Your task to perform on an android device: set an alarm Image 0: 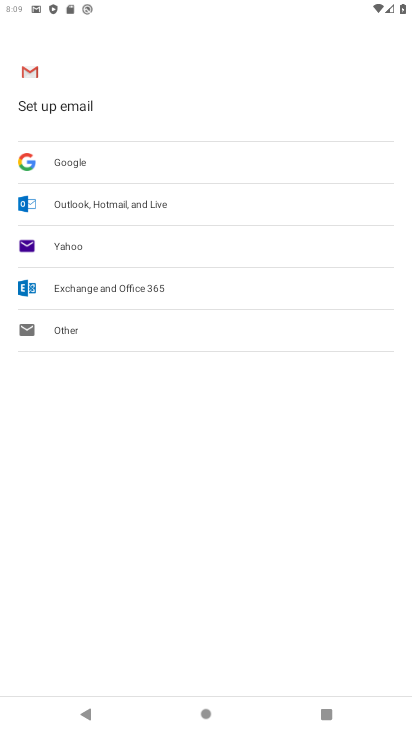
Step 0: press home button
Your task to perform on an android device: set an alarm Image 1: 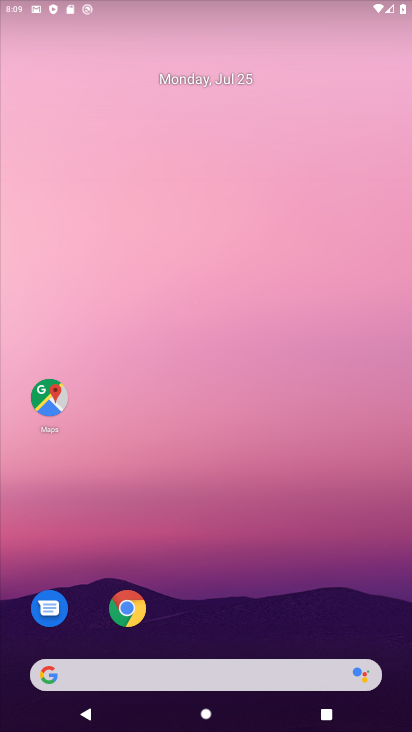
Step 1: drag from (130, 715) to (118, 18)
Your task to perform on an android device: set an alarm Image 2: 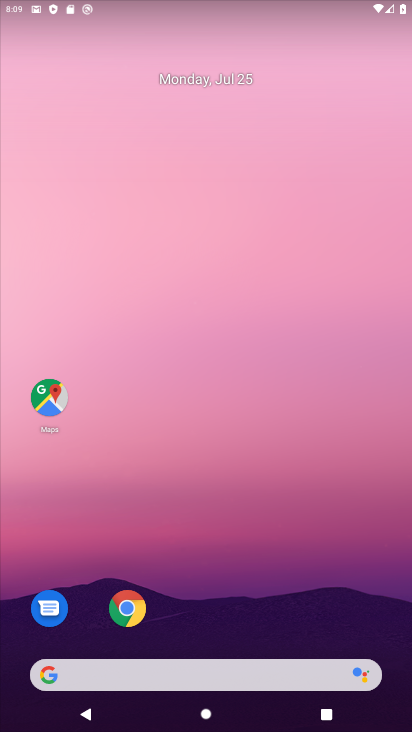
Step 2: drag from (278, 685) to (309, 77)
Your task to perform on an android device: set an alarm Image 3: 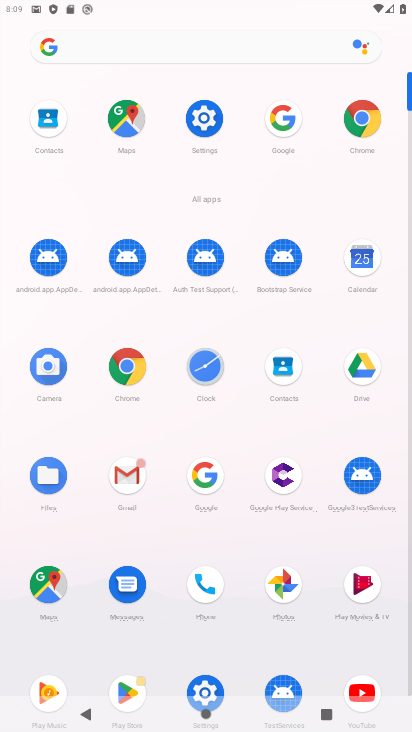
Step 3: click (204, 372)
Your task to perform on an android device: set an alarm Image 4: 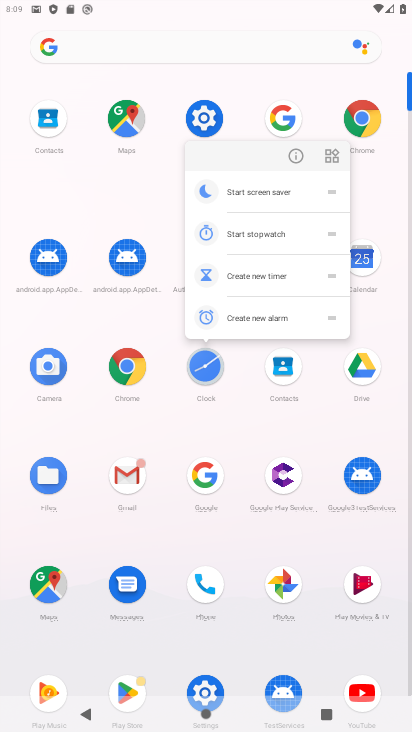
Step 4: click (203, 371)
Your task to perform on an android device: set an alarm Image 5: 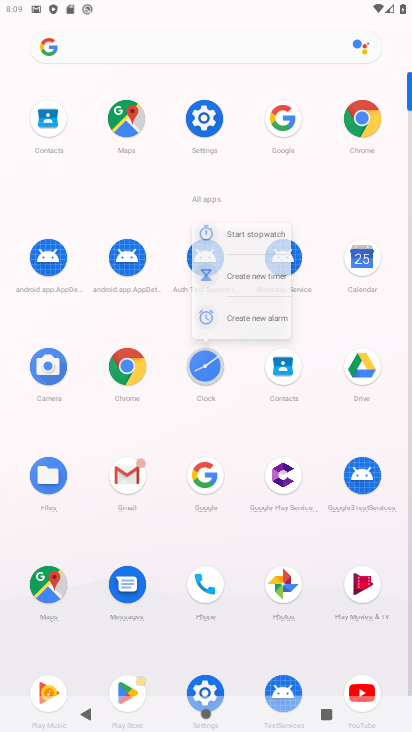
Step 5: click (203, 371)
Your task to perform on an android device: set an alarm Image 6: 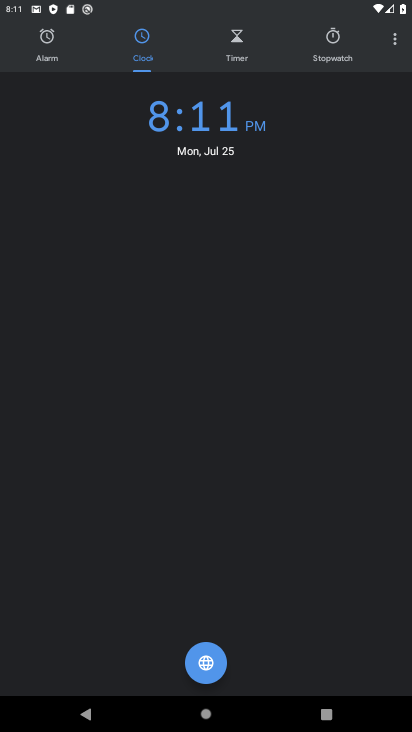
Step 6: click (59, 32)
Your task to perform on an android device: set an alarm Image 7: 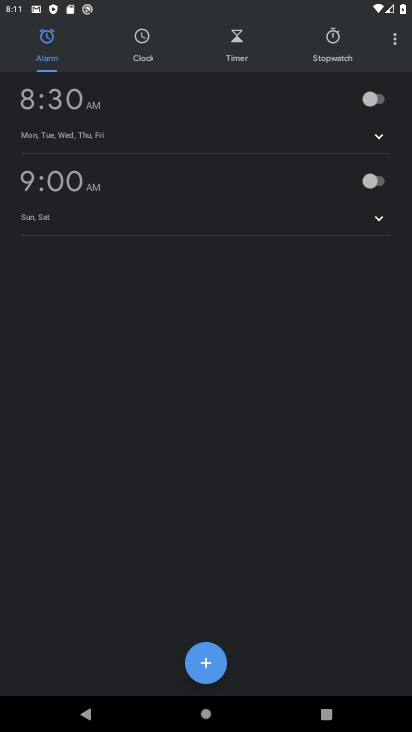
Step 7: click (207, 674)
Your task to perform on an android device: set an alarm Image 8: 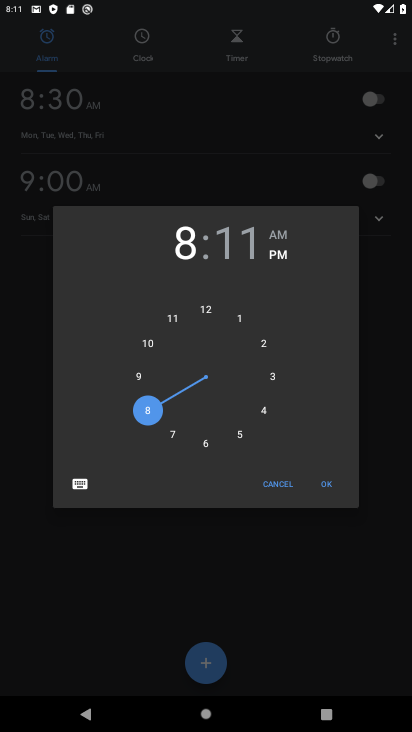
Step 8: click (323, 491)
Your task to perform on an android device: set an alarm Image 9: 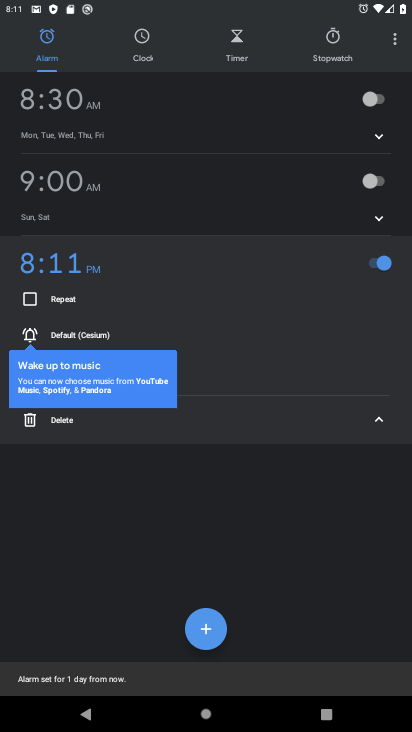
Step 9: task complete